Your task to perform on an android device: Open Wikipedia Image 0: 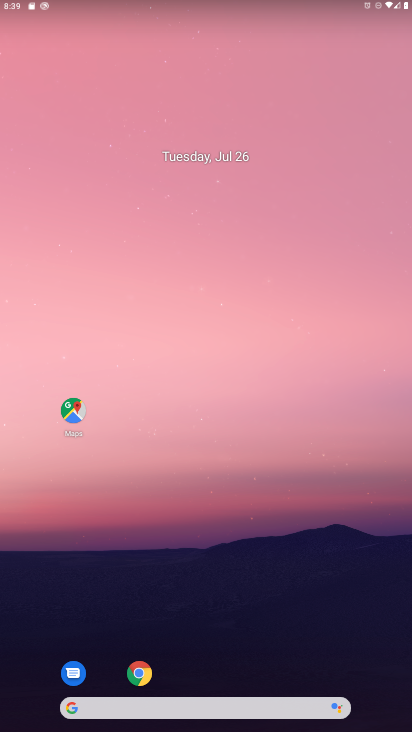
Step 0: drag from (332, 651) to (113, 0)
Your task to perform on an android device: Open Wikipedia Image 1: 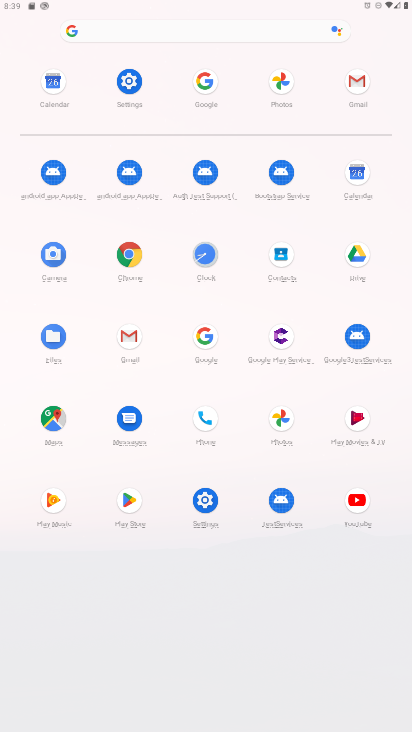
Step 1: click (208, 335)
Your task to perform on an android device: Open Wikipedia Image 2: 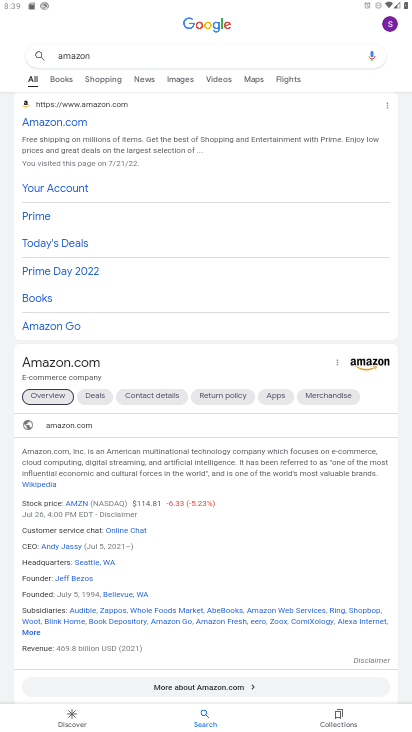
Step 2: press back button
Your task to perform on an android device: Open Wikipedia Image 3: 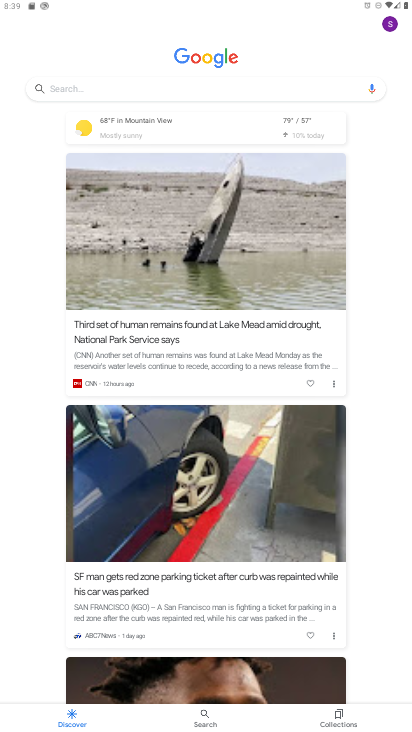
Step 3: click (57, 85)
Your task to perform on an android device: Open Wikipedia Image 4: 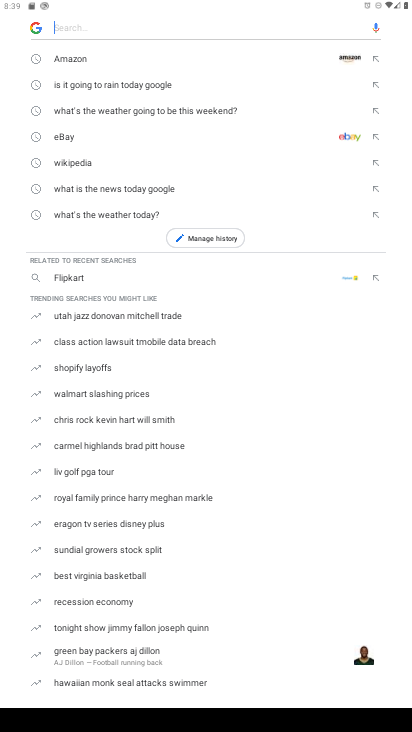
Step 4: type "Wikipedia"
Your task to perform on an android device: Open Wikipedia Image 5: 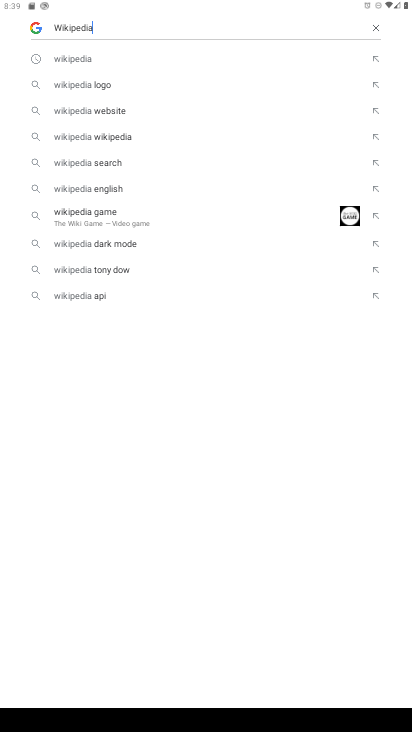
Step 5: click (92, 55)
Your task to perform on an android device: Open Wikipedia Image 6: 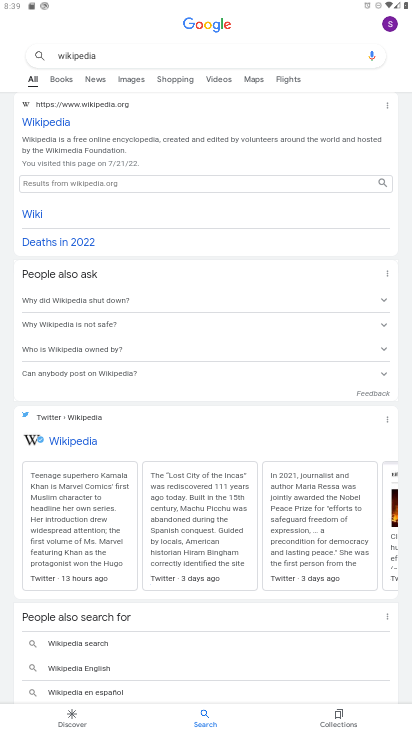
Step 6: task complete